Your task to perform on an android device: turn on the 12-hour format for clock Image 0: 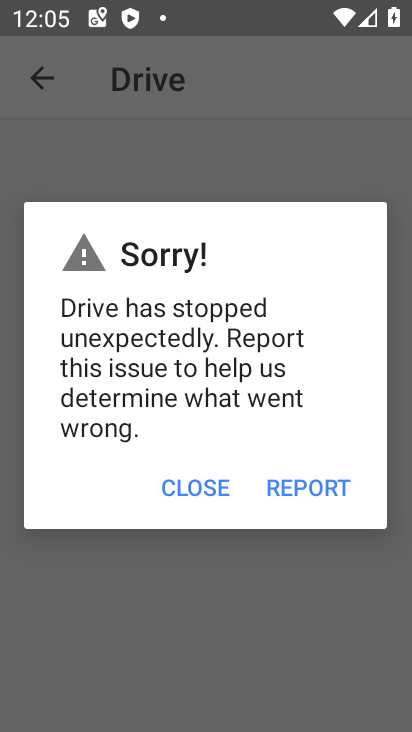
Step 0: press back button
Your task to perform on an android device: turn on the 12-hour format for clock Image 1: 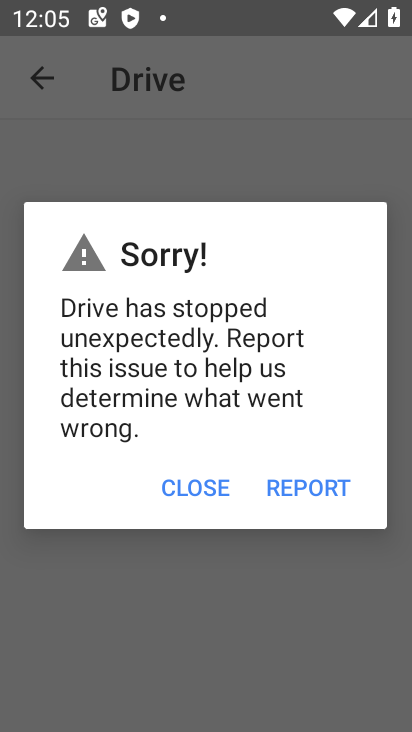
Step 1: press home button
Your task to perform on an android device: turn on the 12-hour format for clock Image 2: 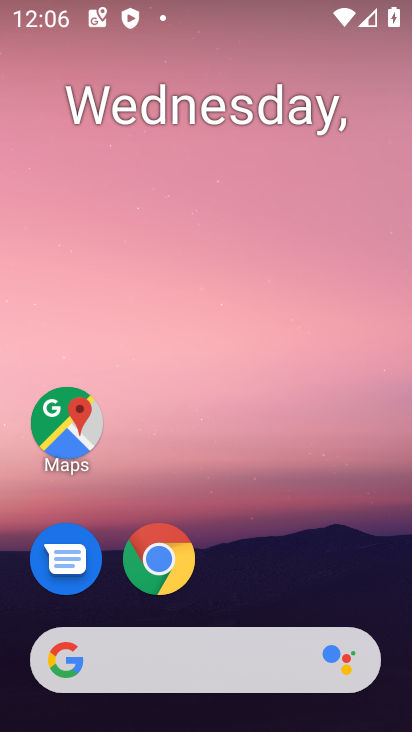
Step 2: drag from (257, 565) to (265, 11)
Your task to perform on an android device: turn on the 12-hour format for clock Image 3: 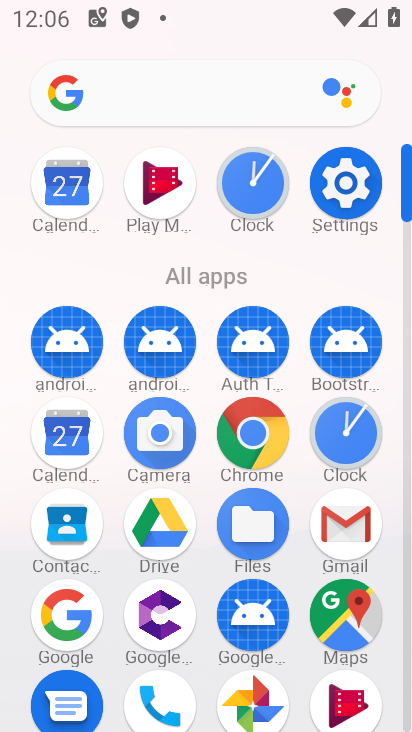
Step 3: click (354, 435)
Your task to perform on an android device: turn on the 12-hour format for clock Image 4: 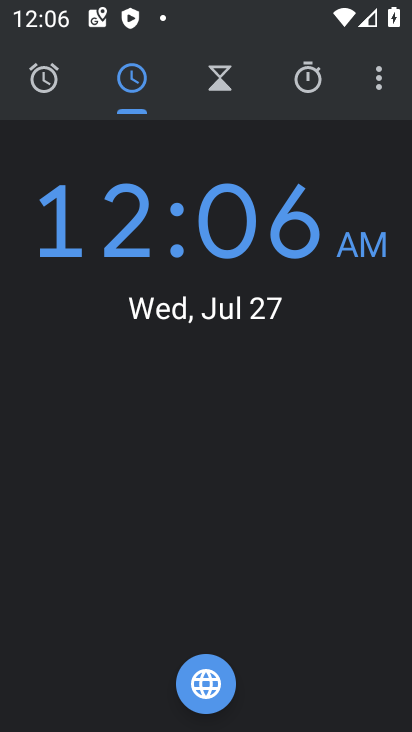
Step 4: click (374, 68)
Your task to perform on an android device: turn on the 12-hour format for clock Image 5: 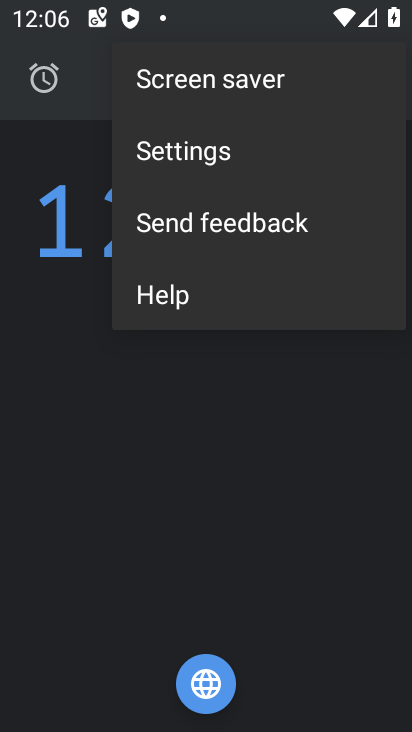
Step 5: click (231, 156)
Your task to perform on an android device: turn on the 12-hour format for clock Image 6: 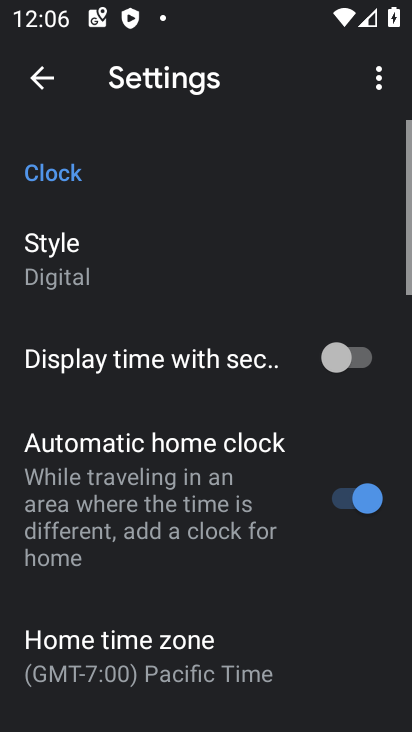
Step 6: drag from (153, 614) to (255, 7)
Your task to perform on an android device: turn on the 12-hour format for clock Image 7: 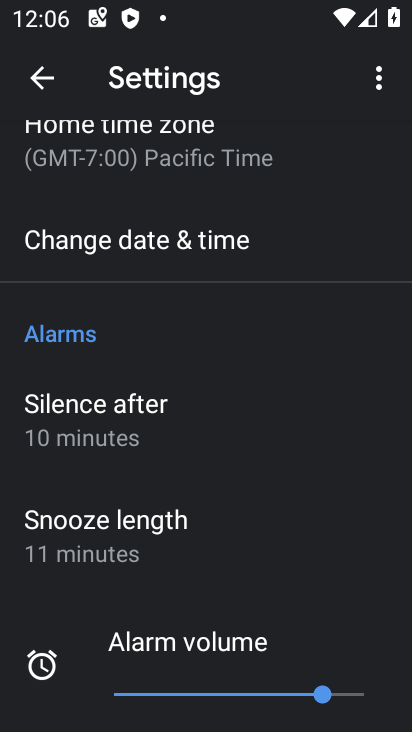
Step 7: click (102, 235)
Your task to perform on an android device: turn on the 12-hour format for clock Image 8: 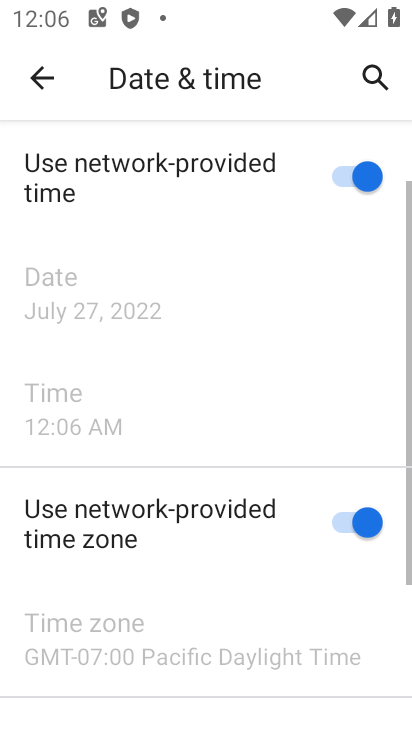
Step 8: task complete